Your task to perform on an android device: Open battery settings Image 0: 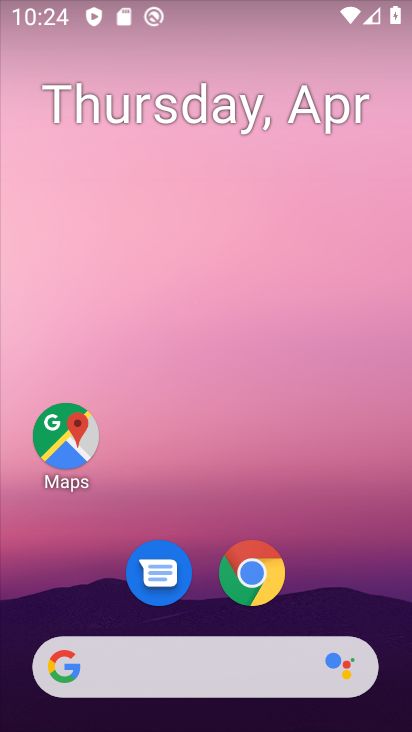
Step 0: drag from (328, 597) to (206, 51)
Your task to perform on an android device: Open battery settings Image 1: 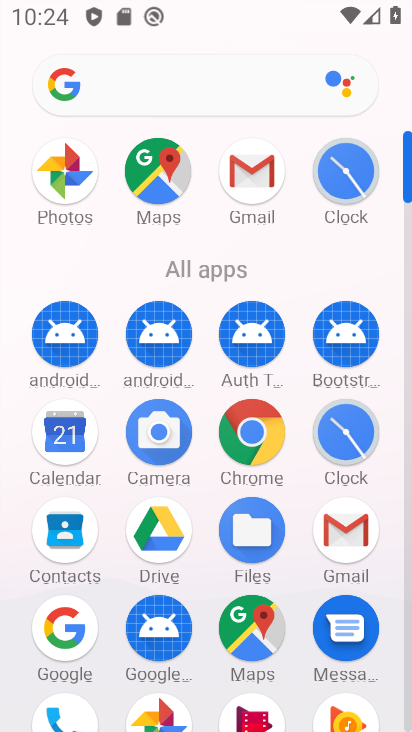
Step 1: drag from (273, 523) to (306, 153)
Your task to perform on an android device: Open battery settings Image 2: 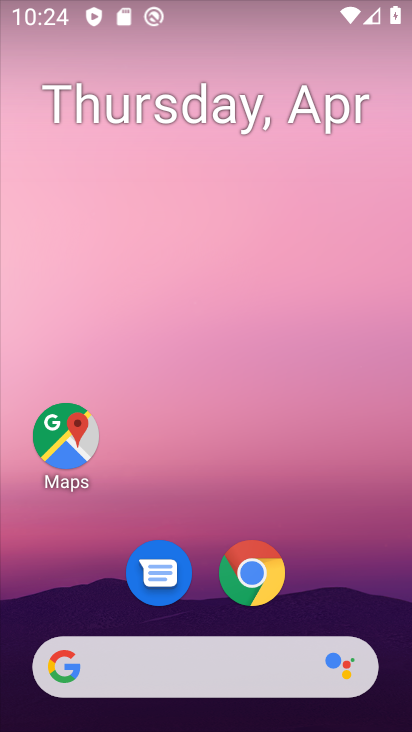
Step 2: drag from (299, 605) to (263, 177)
Your task to perform on an android device: Open battery settings Image 3: 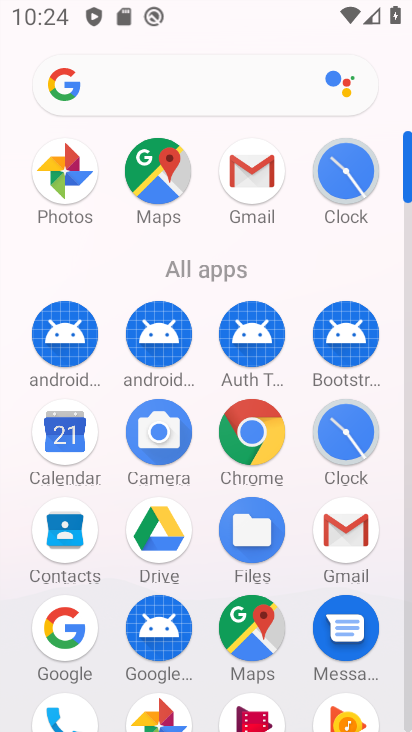
Step 3: drag from (192, 587) to (192, 183)
Your task to perform on an android device: Open battery settings Image 4: 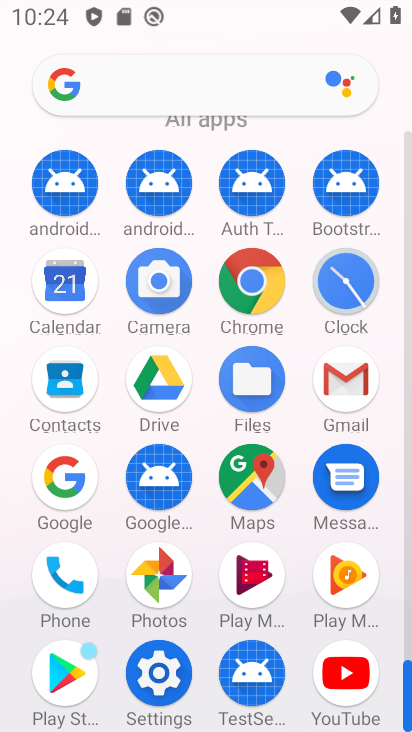
Step 4: click (149, 652)
Your task to perform on an android device: Open battery settings Image 5: 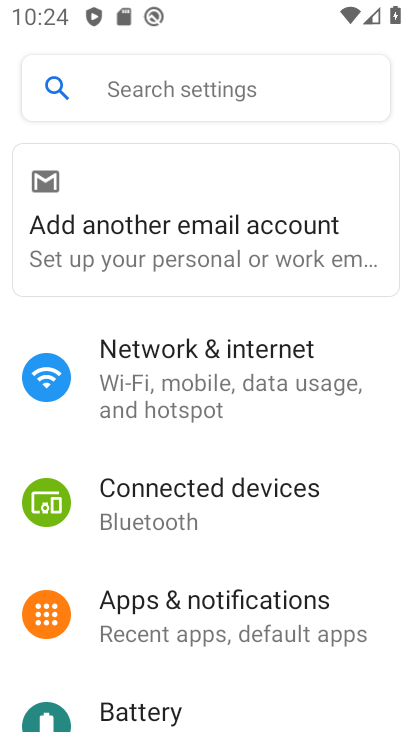
Step 5: drag from (277, 643) to (257, 372)
Your task to perform on an android device: Open battery settings Image 6: 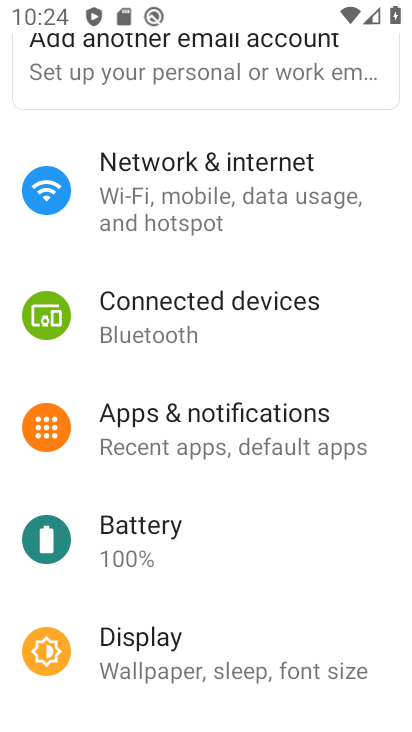
Step 6: click (196, 518)
Your task to perform on an android device: Open battery settings Image 7: 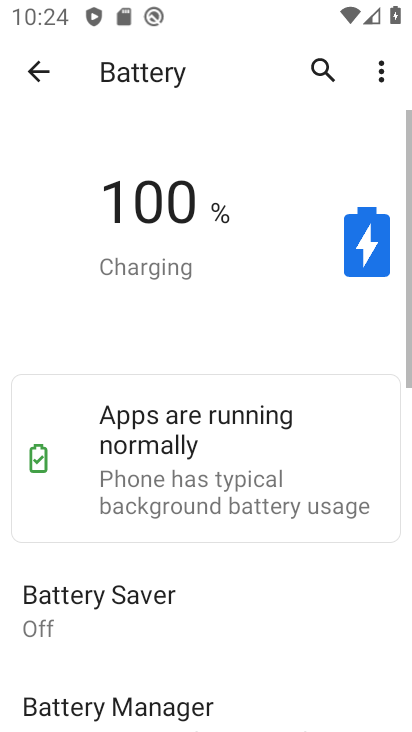
Step 7: task complete